Your task to perform on an android device: open sync settings in chrome Image 0: 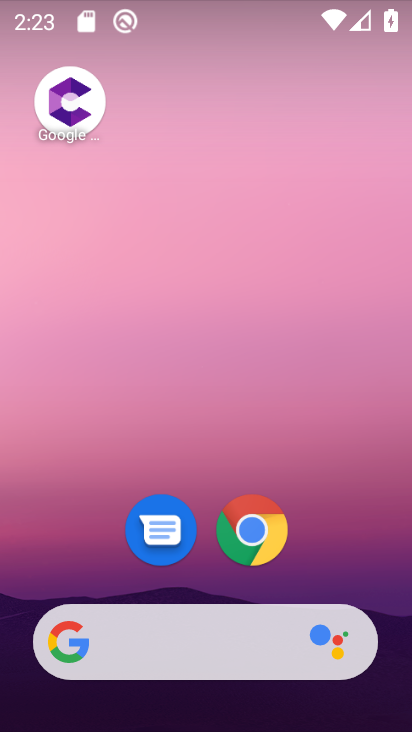
Step 0: click (250, 535)
Your task to perform on an android device: open sync settings in chrome Image 1: 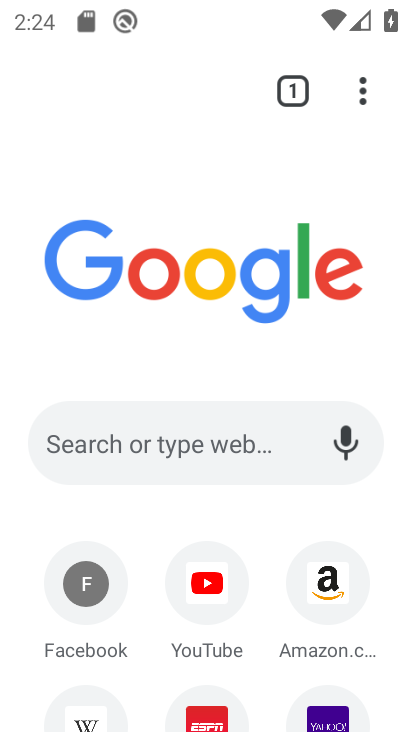
Step 1: click (361, 89)
Your task to perform on an android device: open sync settings in chrome Image 2: 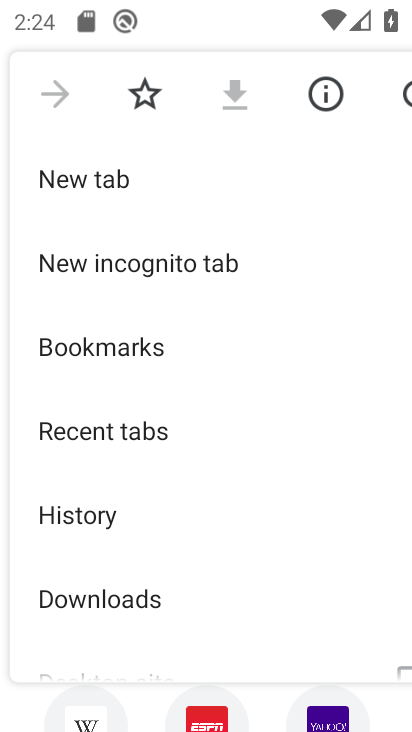
Step 2: drag from (138, 622) to (132, 153)
Your task to perform on an android device: open sync settings in chrome Image 3: 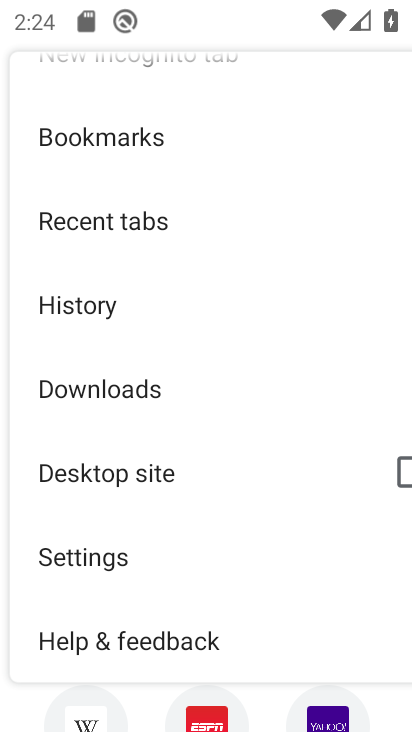
Step 3: click (70, 556)
Your task to perform on an android device: open sync settings in chrome Image 4: 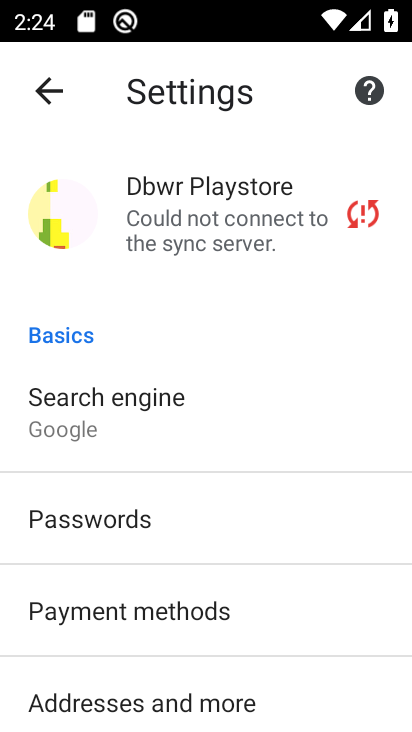
Step 4: drag from (121, 631) to (127, 109)
Your task to perform on an android device: open sync settings in chrome Image 5: 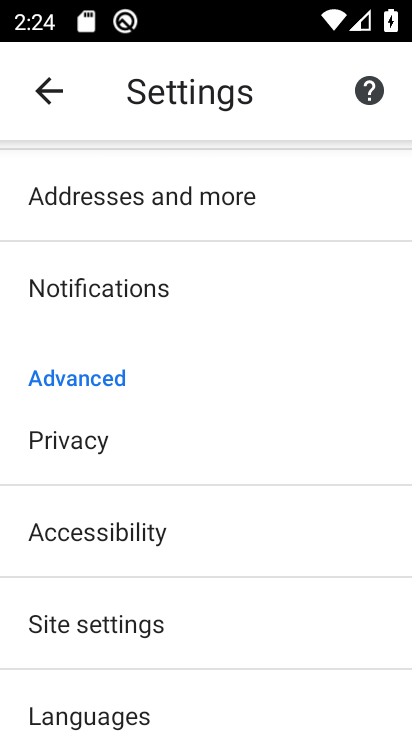
Step 5: click (86, 621)
Your task to perform on an android device: open sync settings in chrome Image 6: 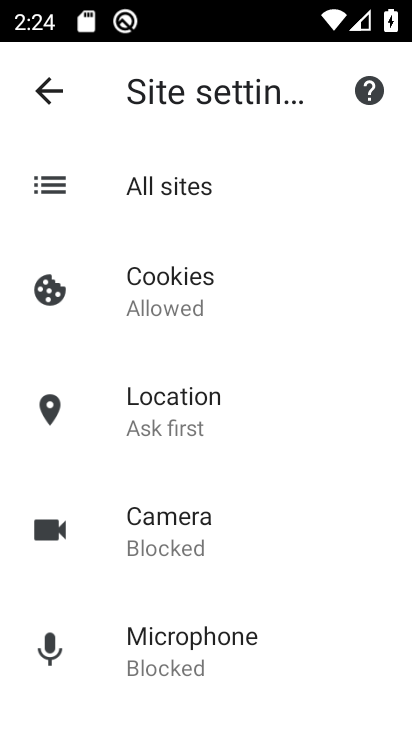
Step 6: drag from (197, 609) to (189, 145)
Your task to perform on an android device: open sync settings in chrome Image 7: 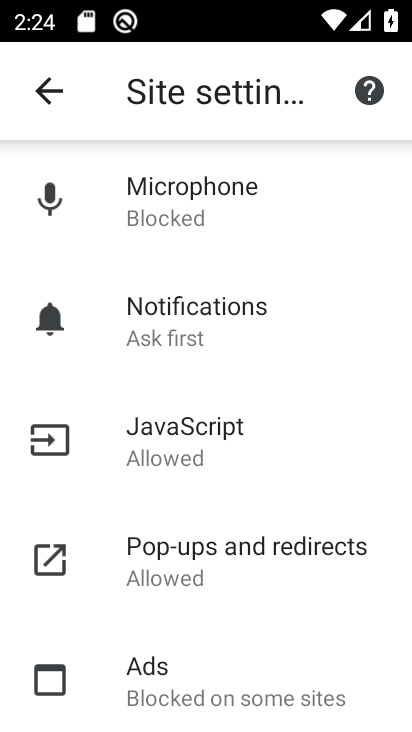
Step 7: drag from (190, 668) to (199, 252)
Your task to perform on an android device: open sync settings in chrome Image 8: 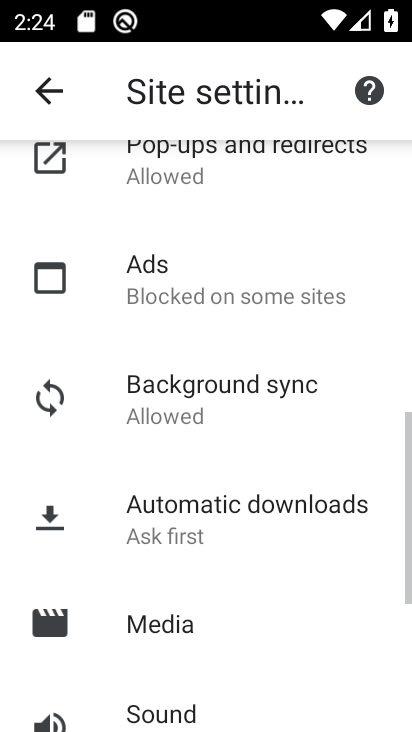
Step 8: click (183, 402)
Your task to perform on an android device: open sync settings in chrome Image 9: 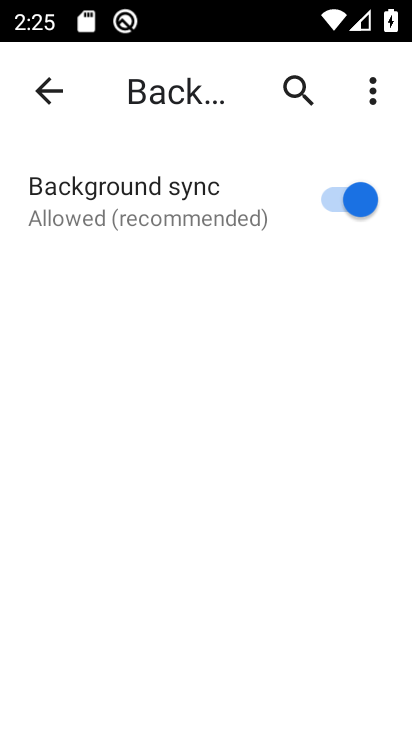
Step 9: task complete